Your task to perform on an android device: What's on the menu at Red Lobster? Image 0: 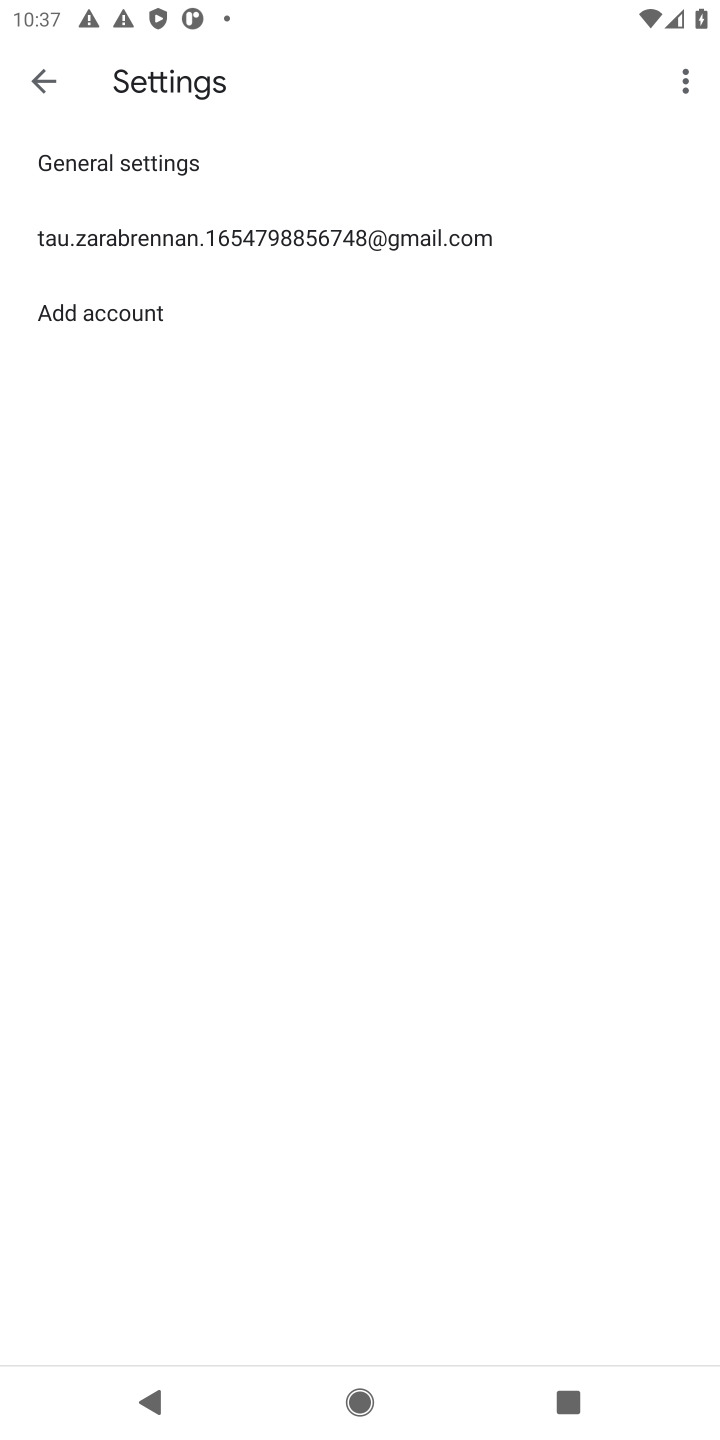
Step 0: press home button
Your task to perform on an android device: What's on the menu at Red Lobster? Image 1: 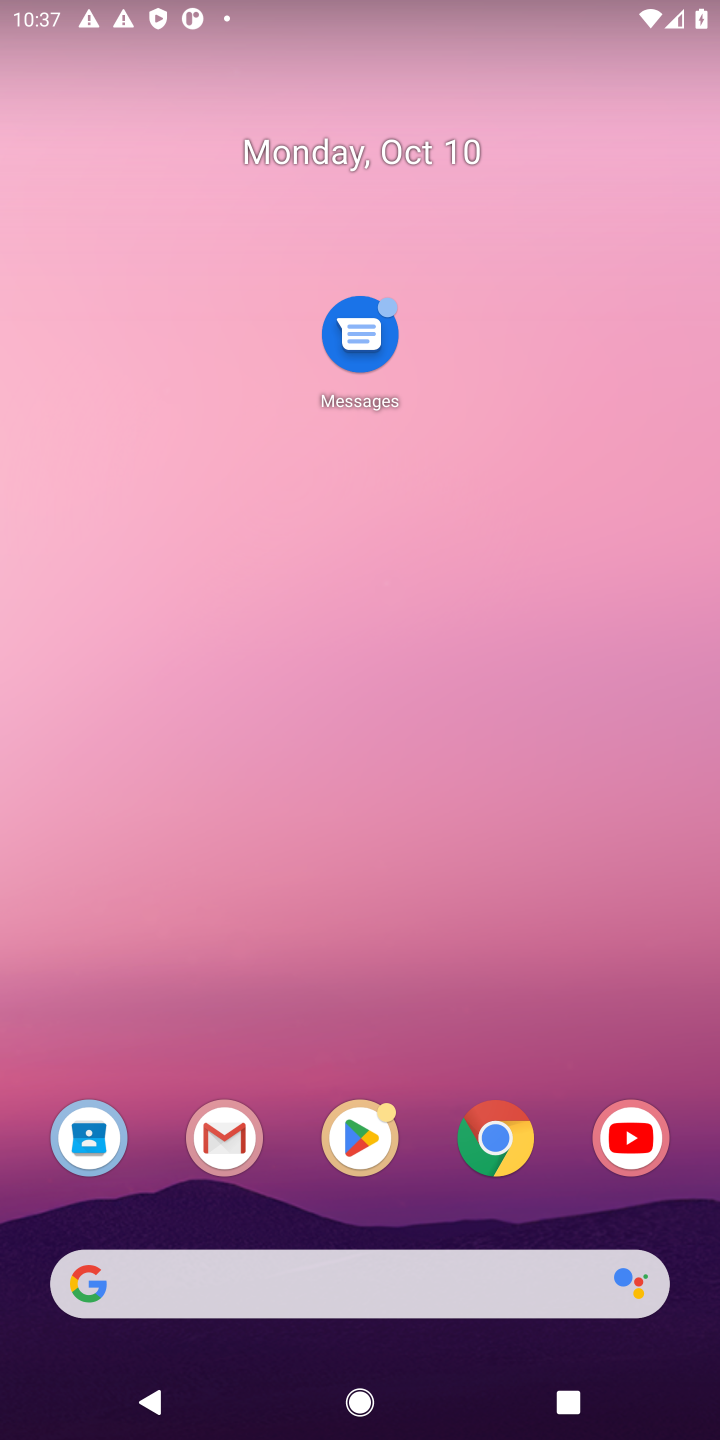
Step 1: click (494, 1142)
Your task to perform on an android device: What's on the menu at Red Lobster? Image 2: 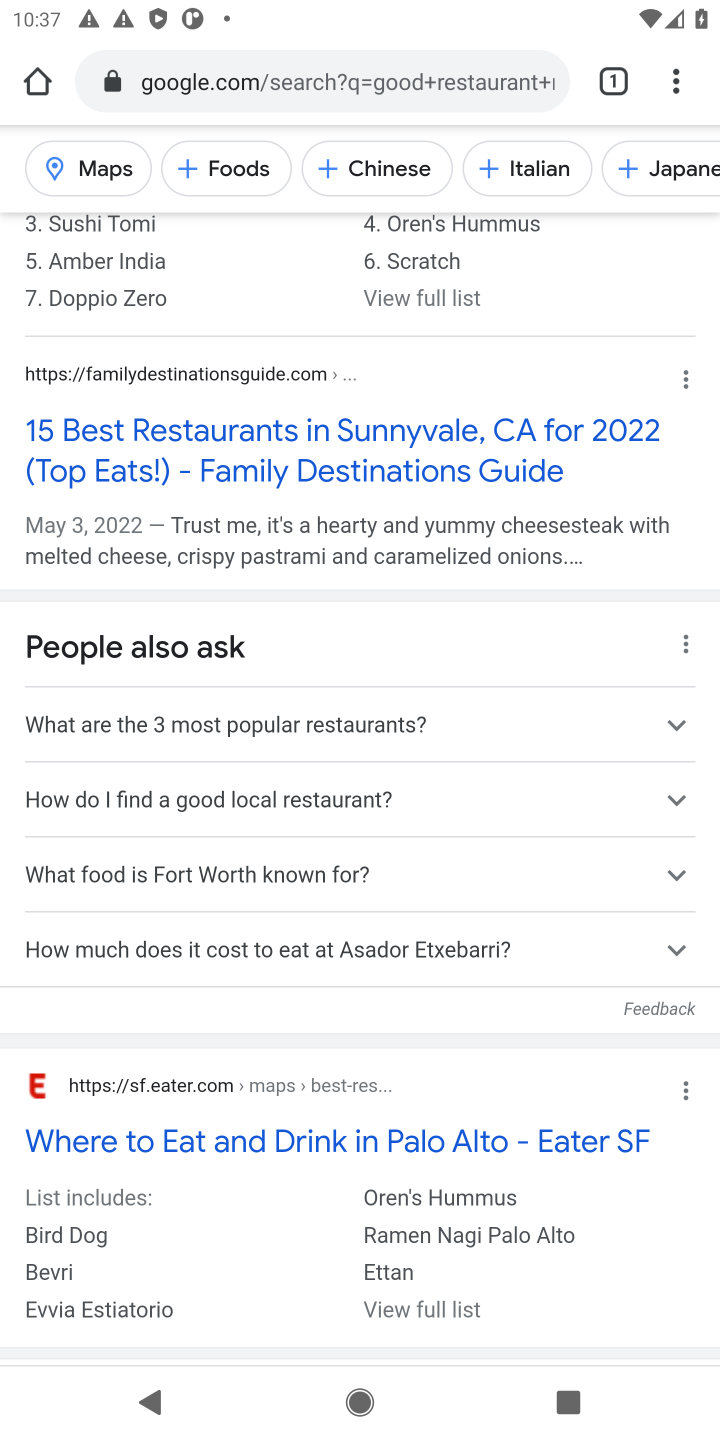
Step 2: click (281, 87)
Your task to perform on an android device: What's on the menu at Red Lobster? Image 3: 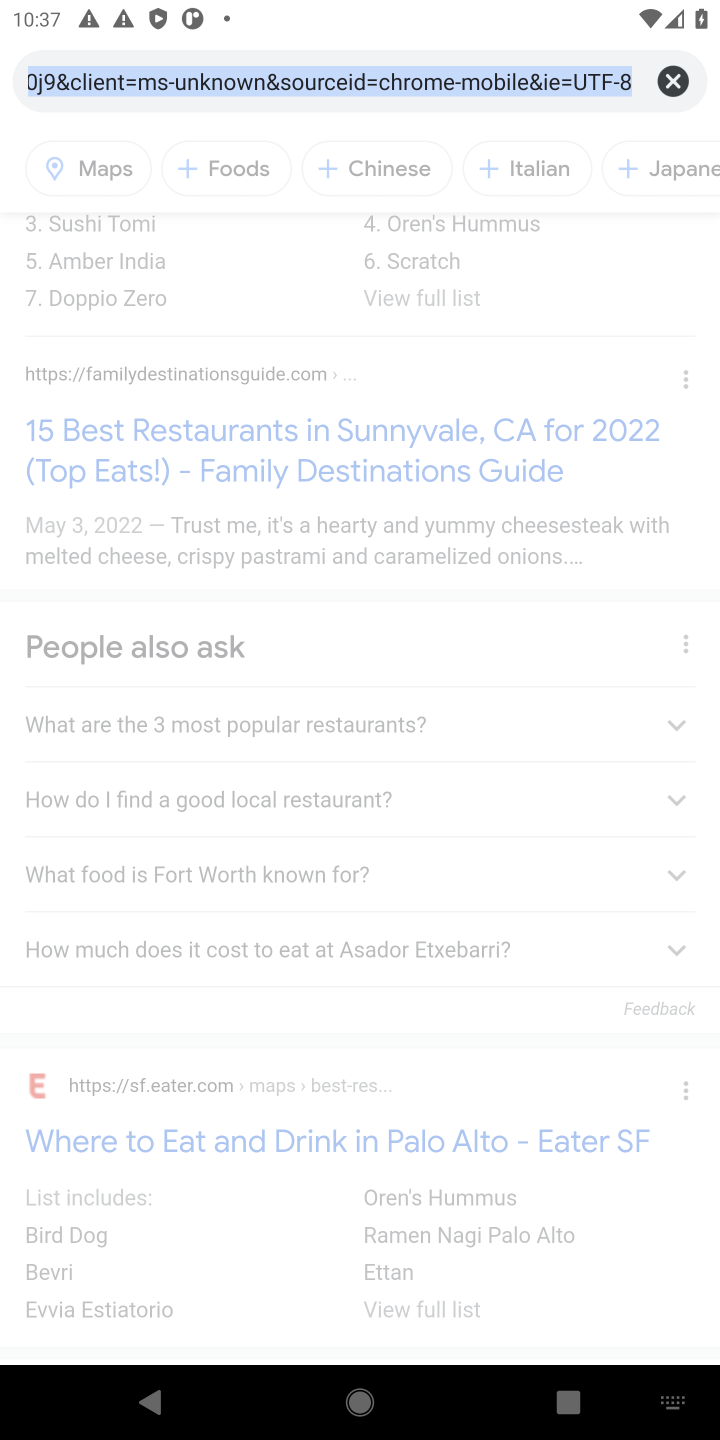
Step 3: type "red lobster"
Your task to perform on an android device: What's on the menu at Red Lobster? Image 4: 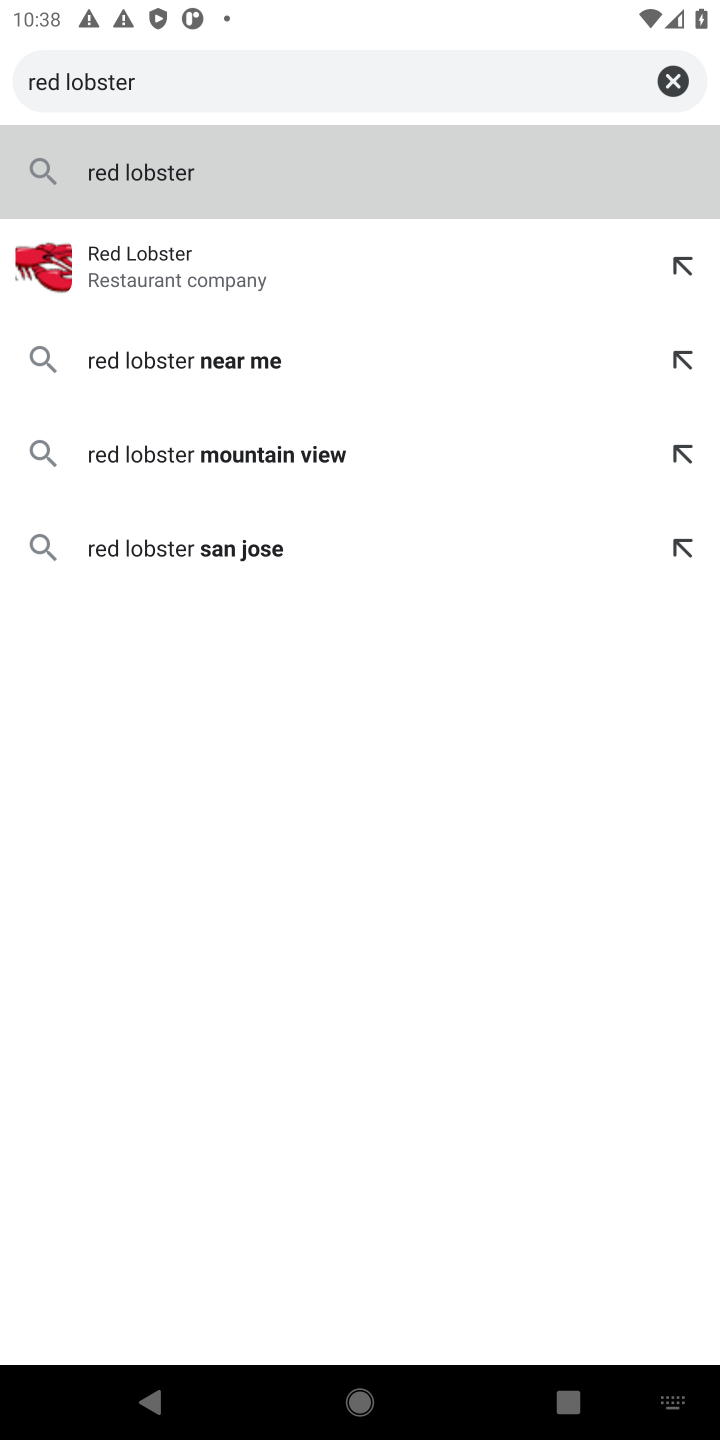
Step 4: press enter
Your task to perform on an android device: What's on the menu at Red Lobster? Image 5: 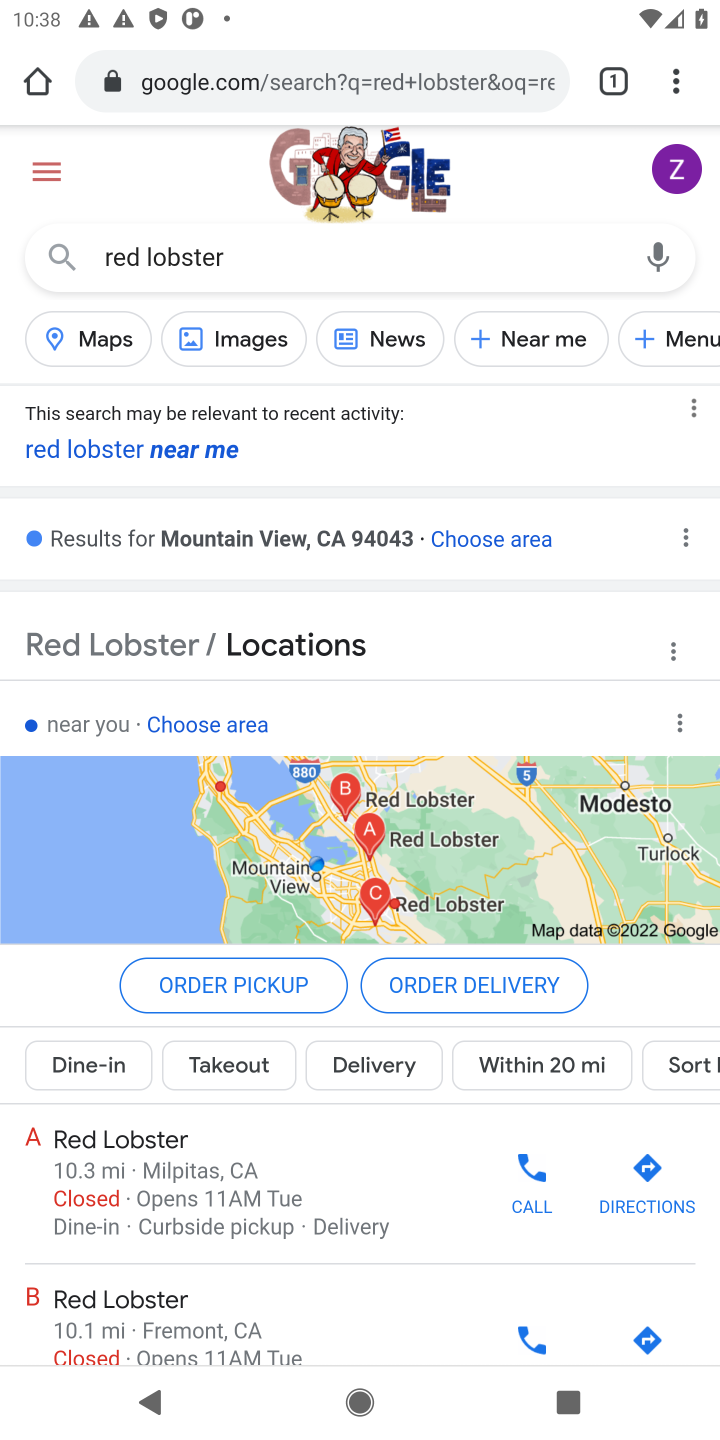
Step 5: drag from (475, 688) to (456, 251)
Your task to perform on an android device: What's on the menu at Red Lobster? Image 6: 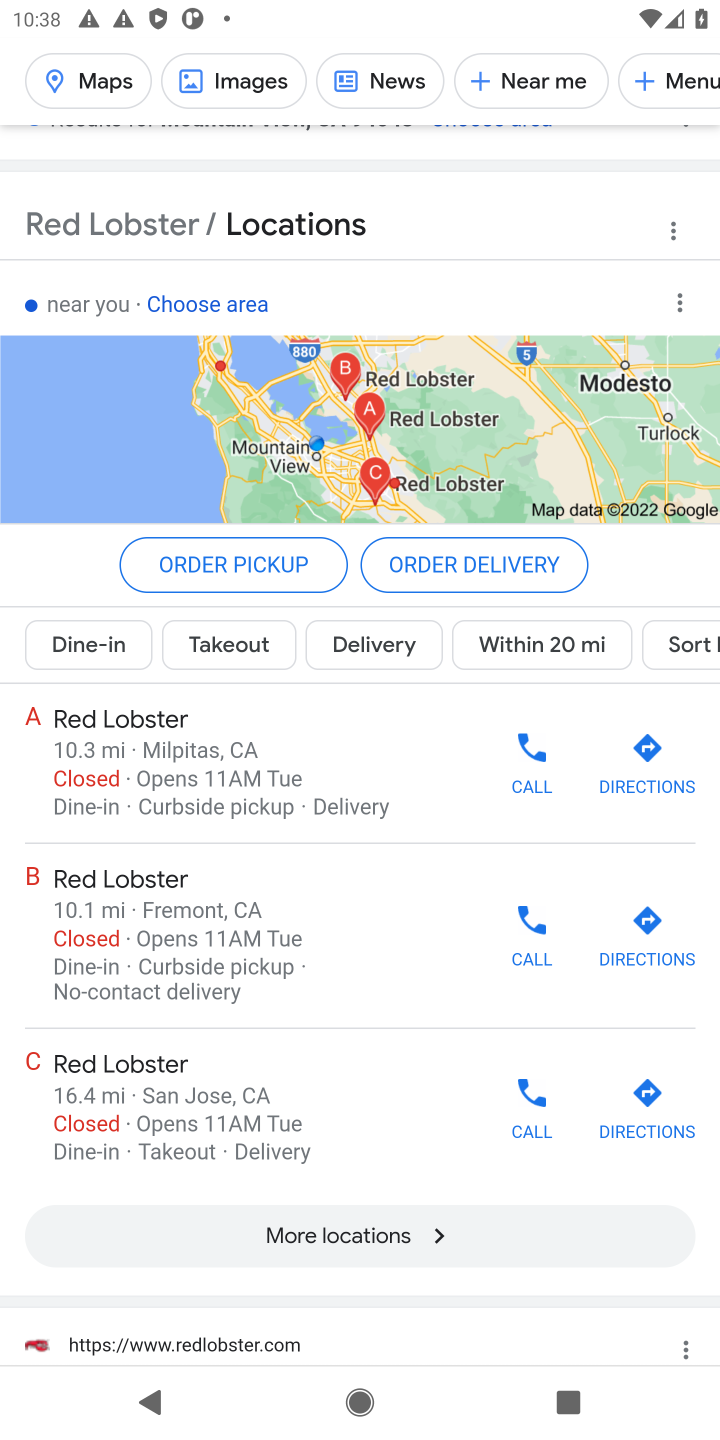
Step 6: drag from (325, 1123) to (367, 438)
Your task to perform on an android device: What's on the menu at Red Lobster? Image 7: 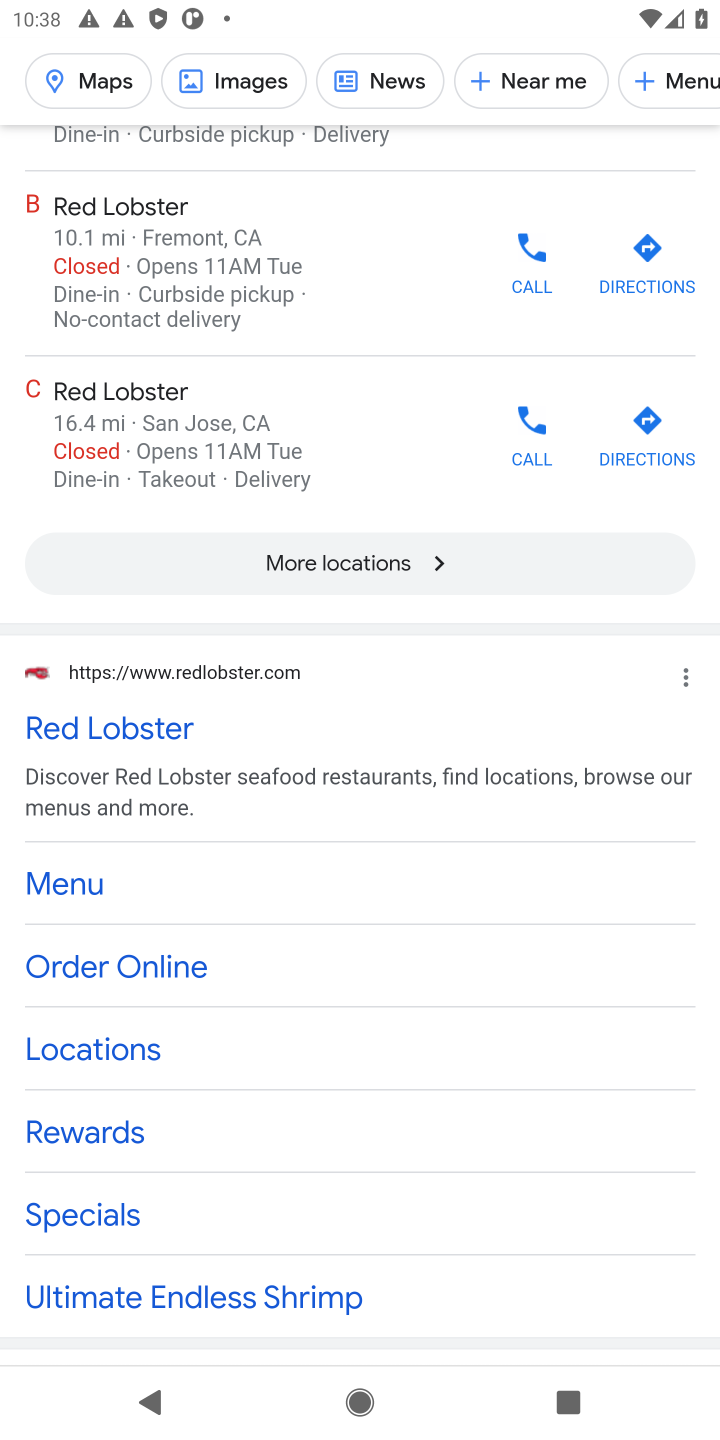
Step 7: click (76, 899)
Your task to perform on an android device: What's on the menu at Red Lobster? Image 8: 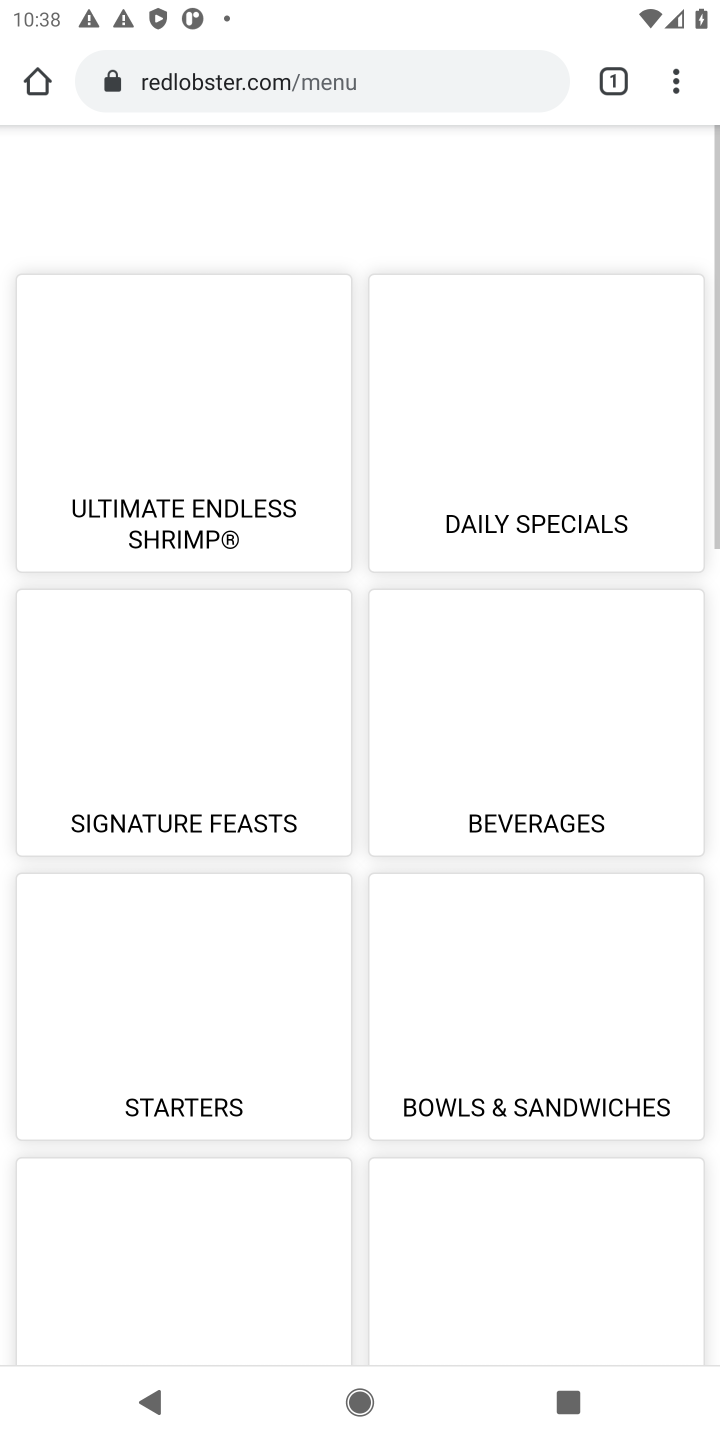
Step 8: drag from (339, 1073) to (311, 726)
Your task to perform on an android device: What's on the menu at Red Lobster? Image 9: 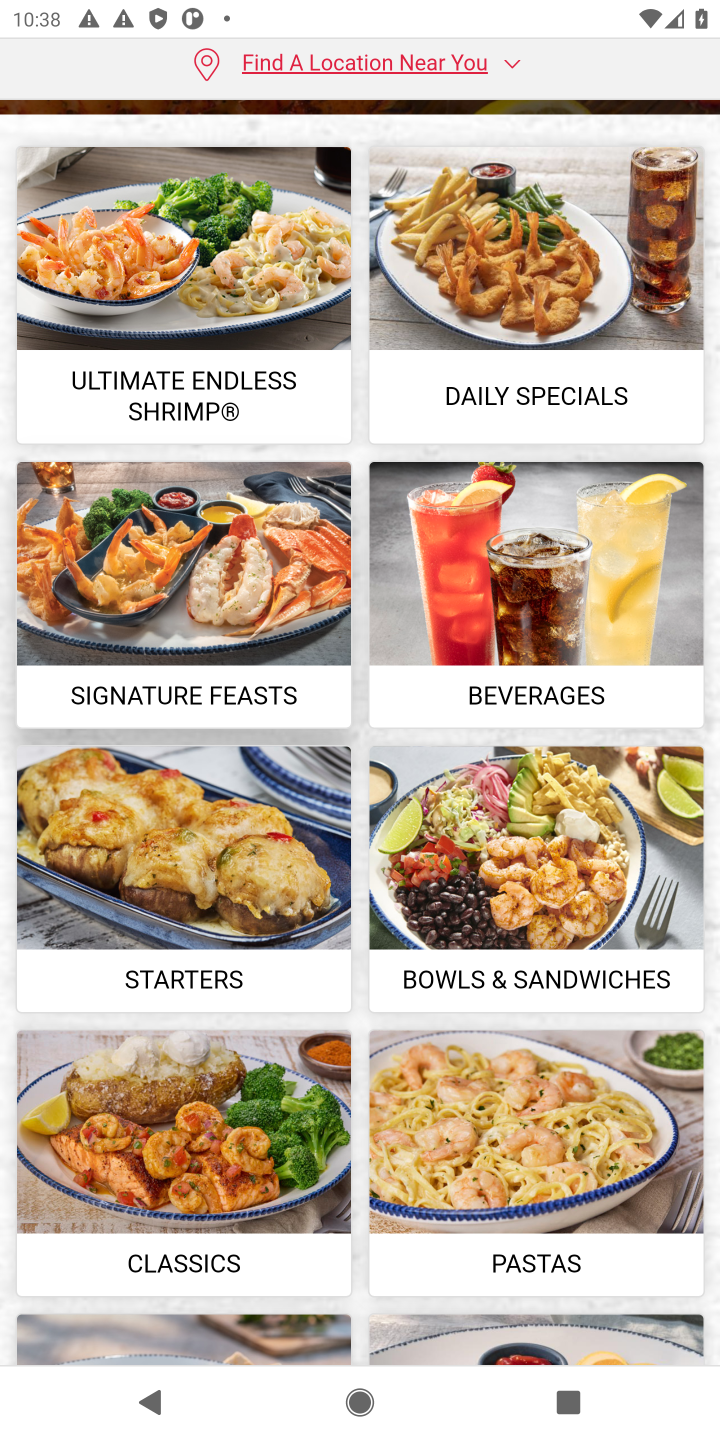
Step 9: click (332, 921)
Your task to perform on an android device: What's on the menu at Red Lobster? Image 10: 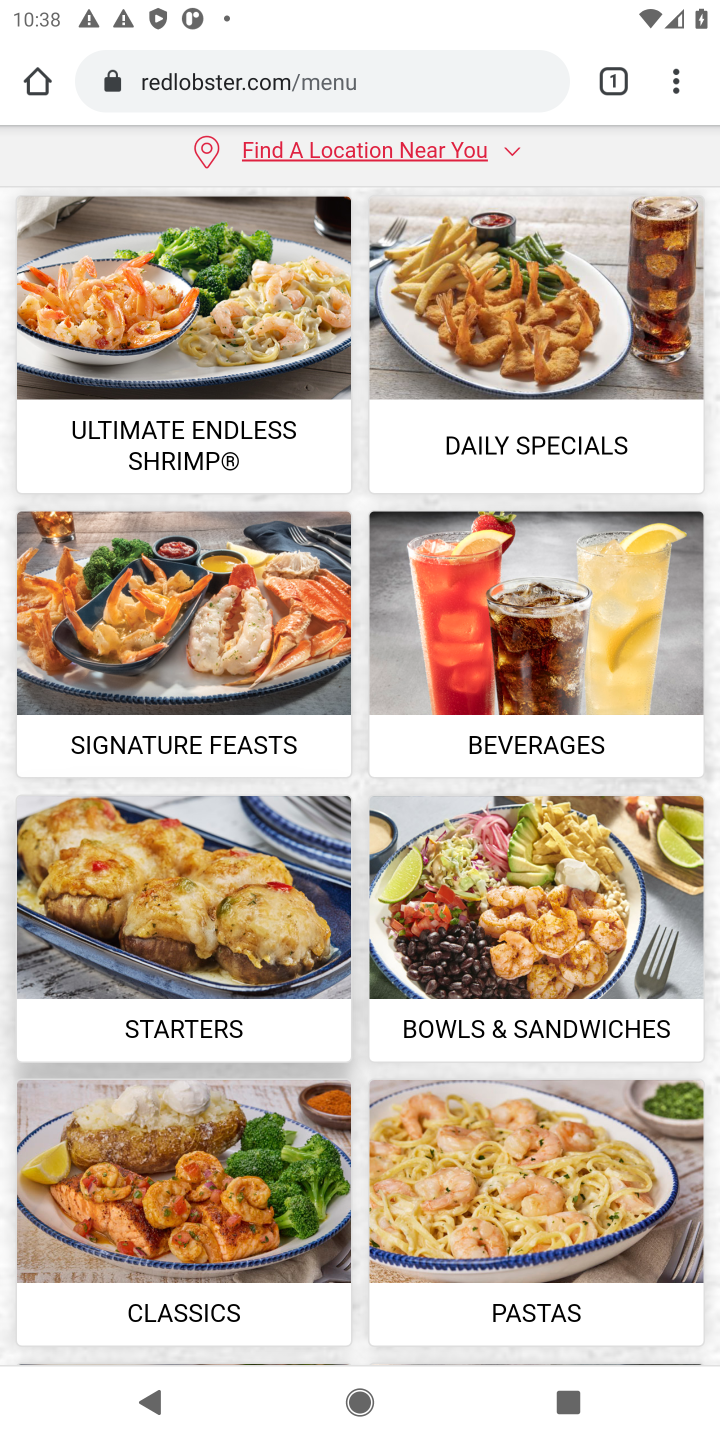
Step 10: drag from (324, 912) to (263, 1041)
Your task to perform on an android device: What's on the menu at Red Lobster? Image 11: 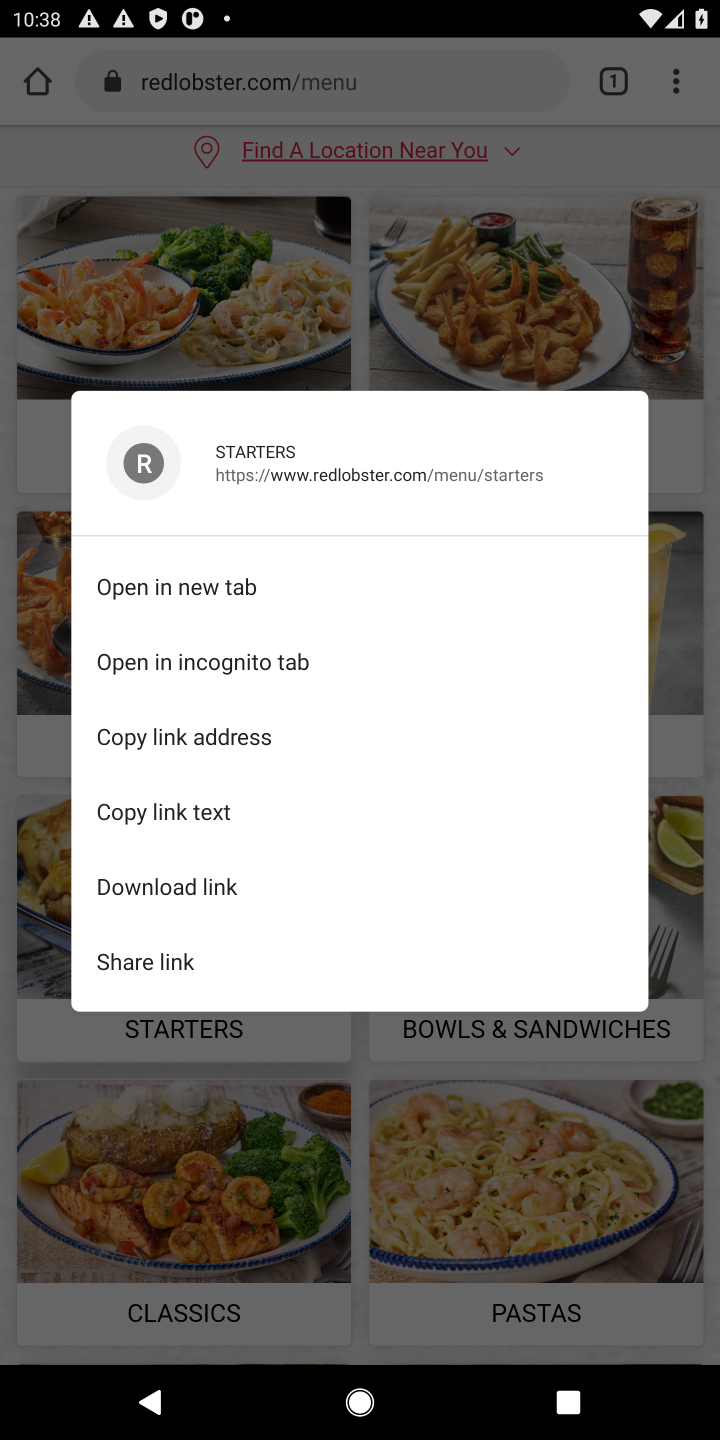
Step 11: click (235, 1061)
Your task to perform on an android device: What's on the menu at Red Lobster? Image 12: 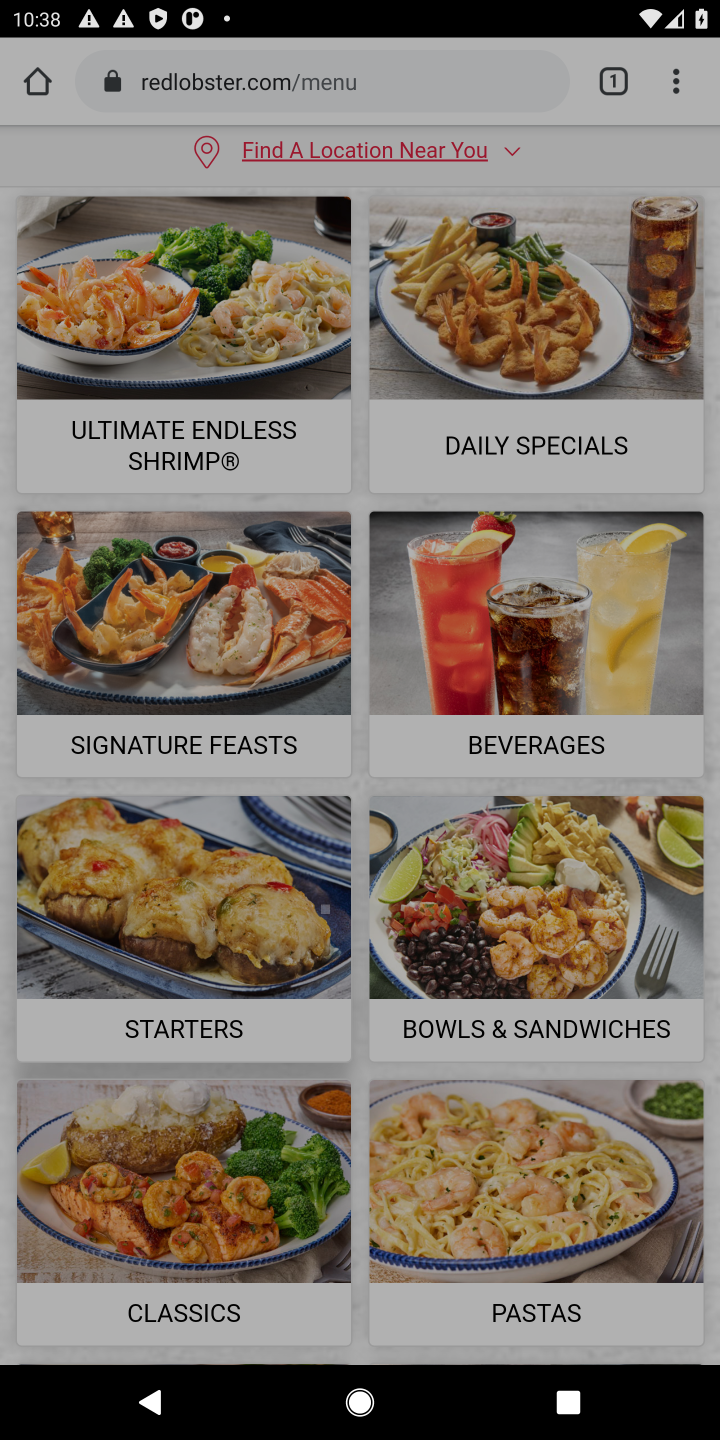
Step 12: click (508, 348)
Your task to perform on an android device: What's on the menu at Red Lobster? Image 13: 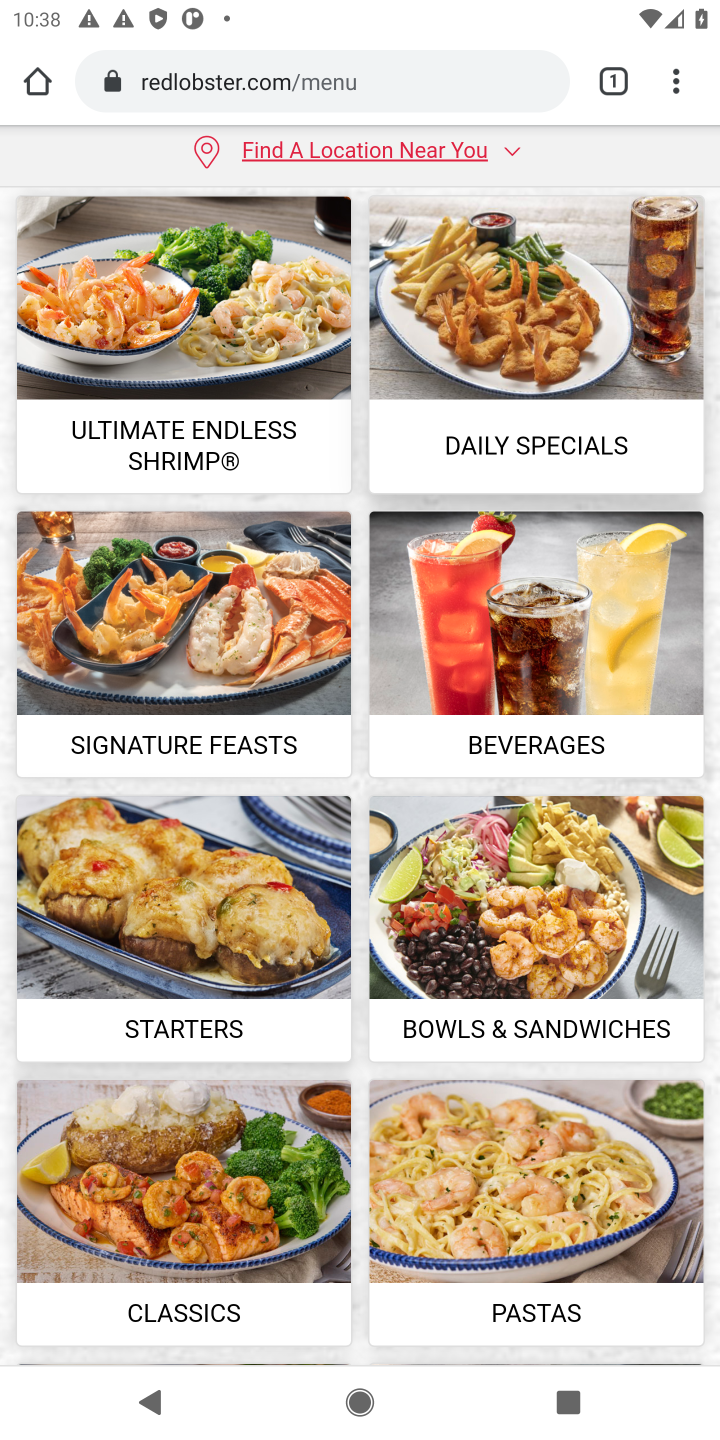
Step 13: drag from (316, 455) to (191, 735)
Your task to perform on an android device: What's on the menu at Red Lobster? Image 14: 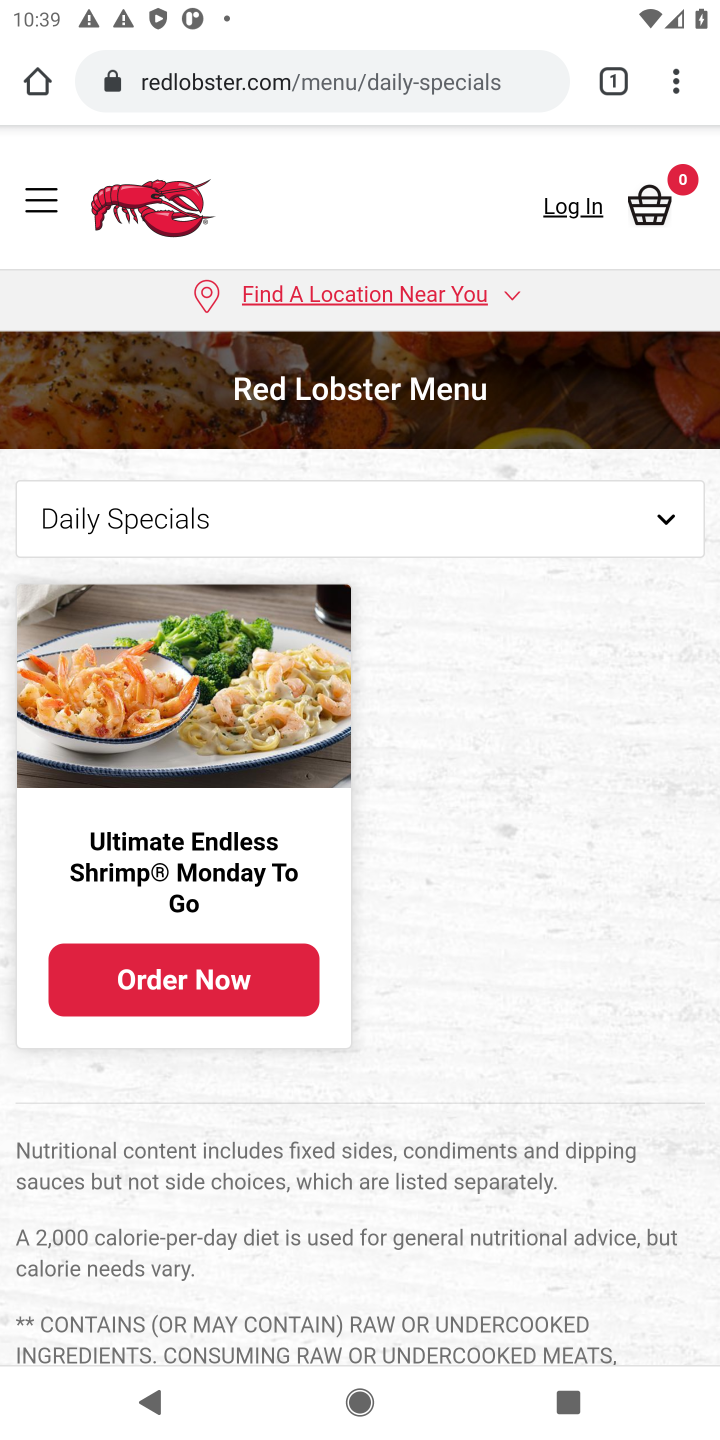
Step 14: drag from (462, 692) to (442, 798)
Your task to perform on an android device: What's on the menu at Red Lobster? Image 15: 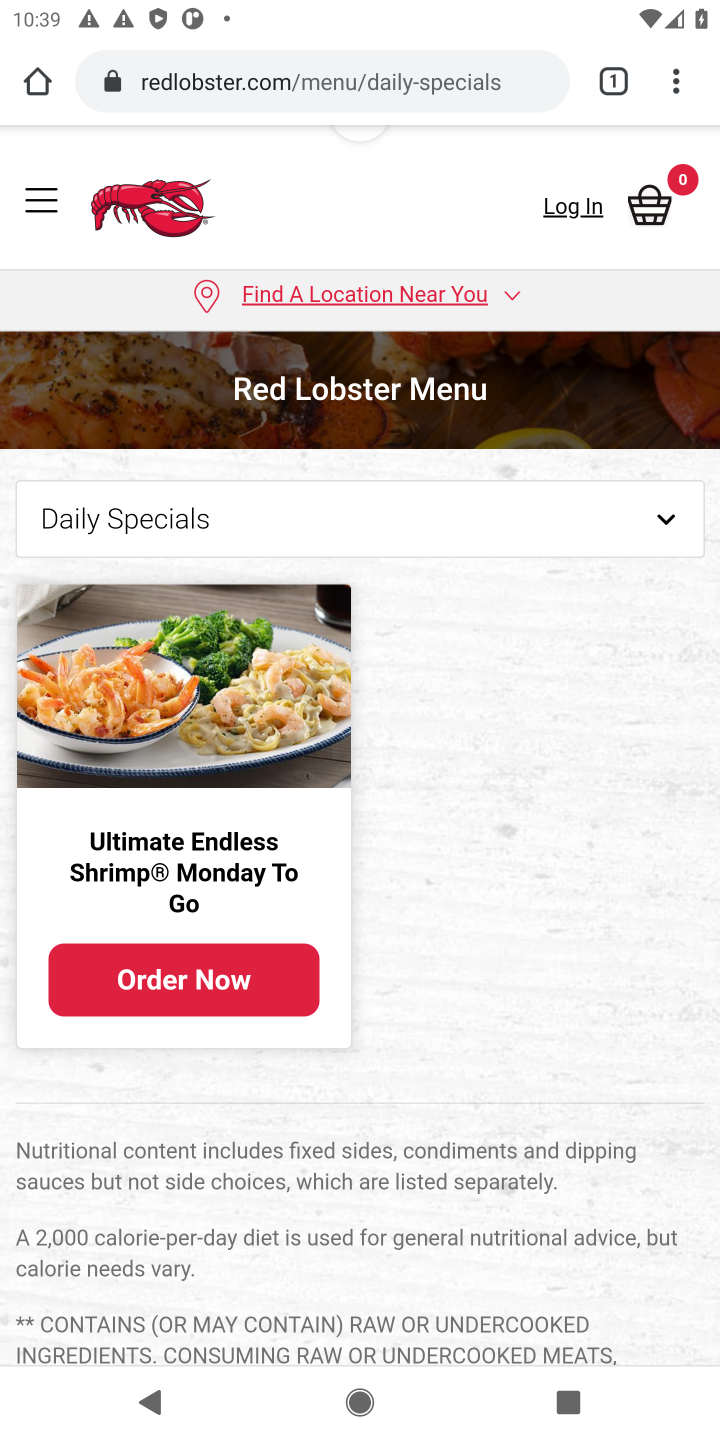
Step 15: click (487, 784)
Your task to perform on an android device: What's on the menu at Red Lobster? Image 16: 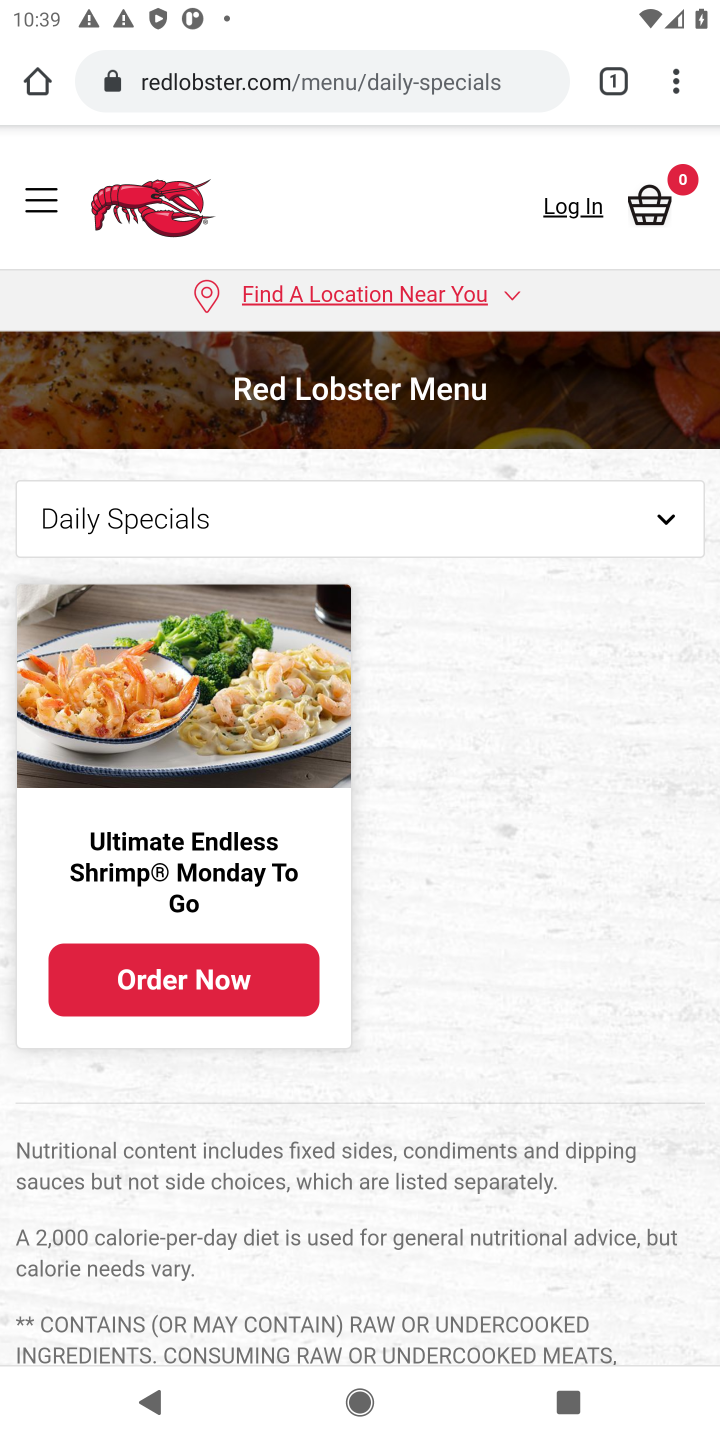
Step 16: click (527, 751)
Your task to perform on an android device: What's on the menu at Red Lobster? Image 17: 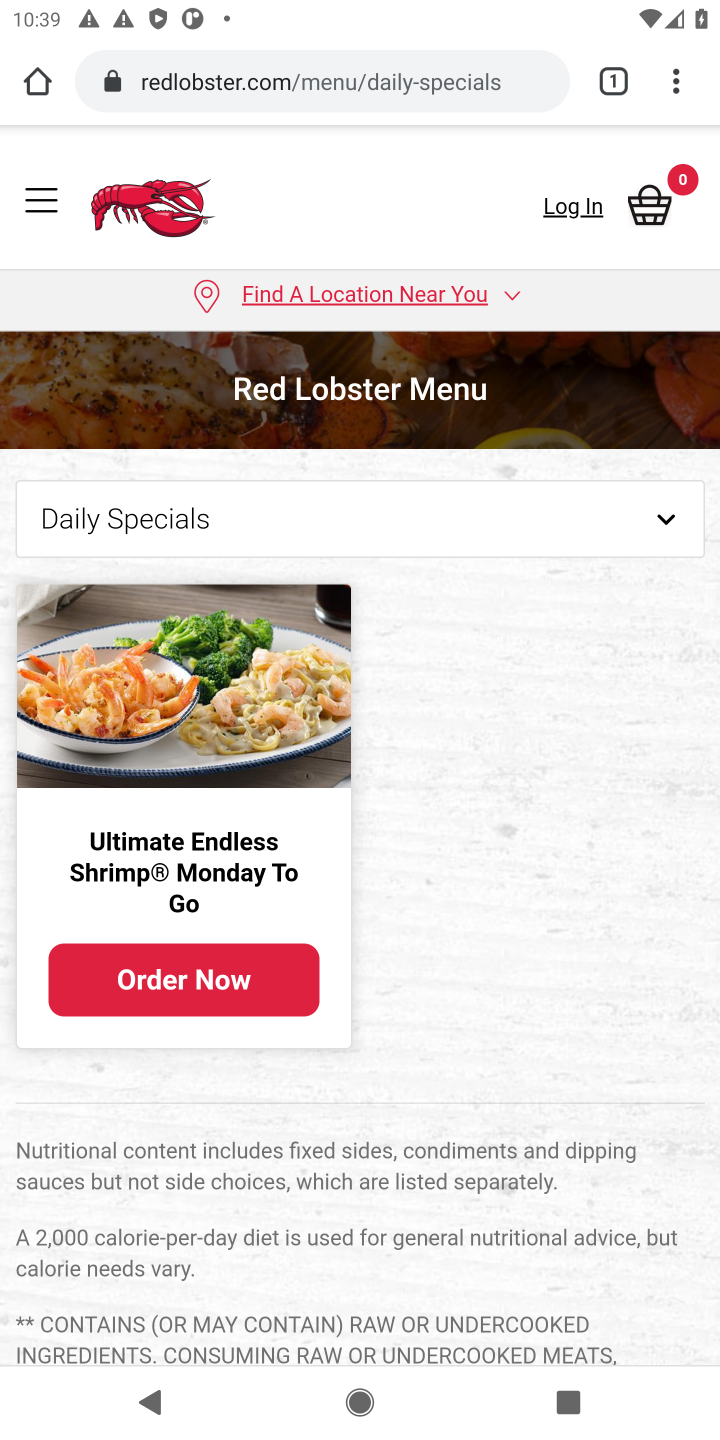
Step 17: click (621, 635)
Your task to perform on an android device: What's on the menu at Red Lobster? Image 18: 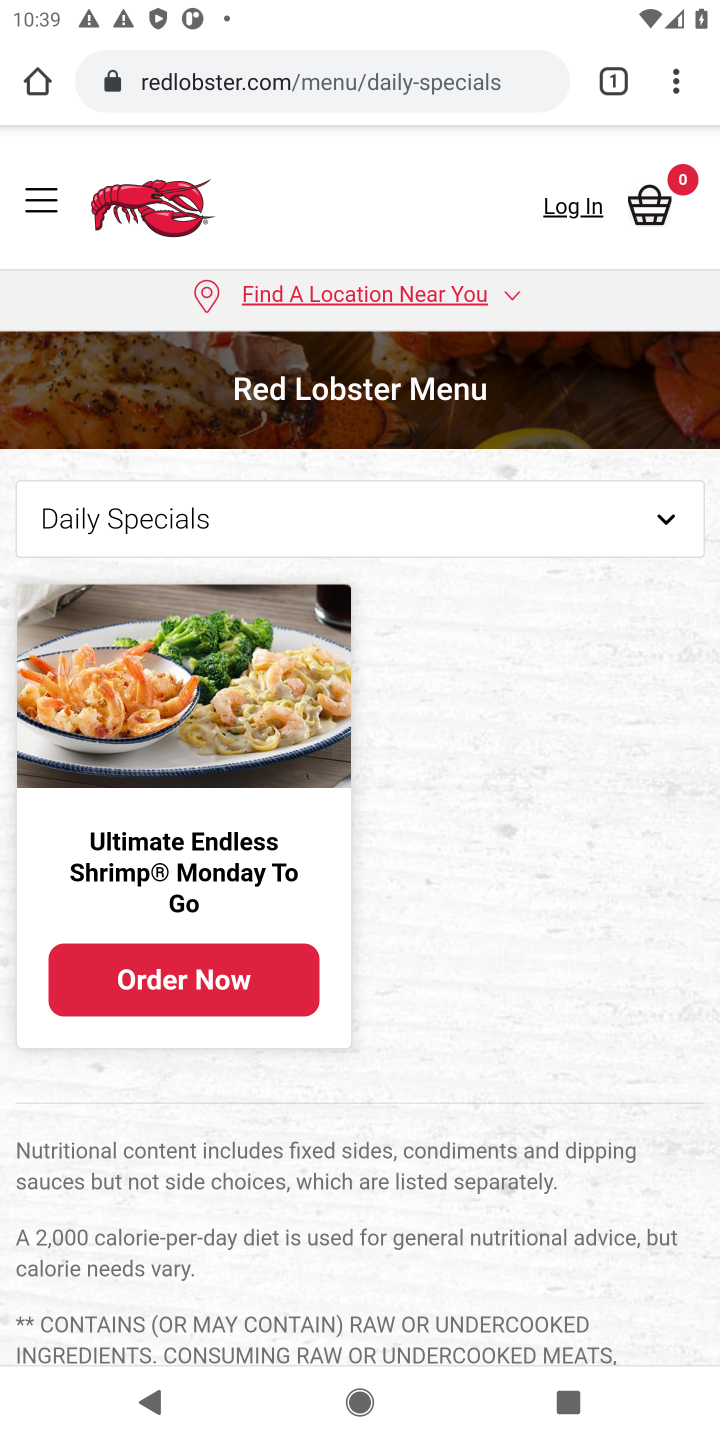
Step 18: click (512, 643)
Your task to perform on an android device: What's on the menu at Red Lobster? Image 19: 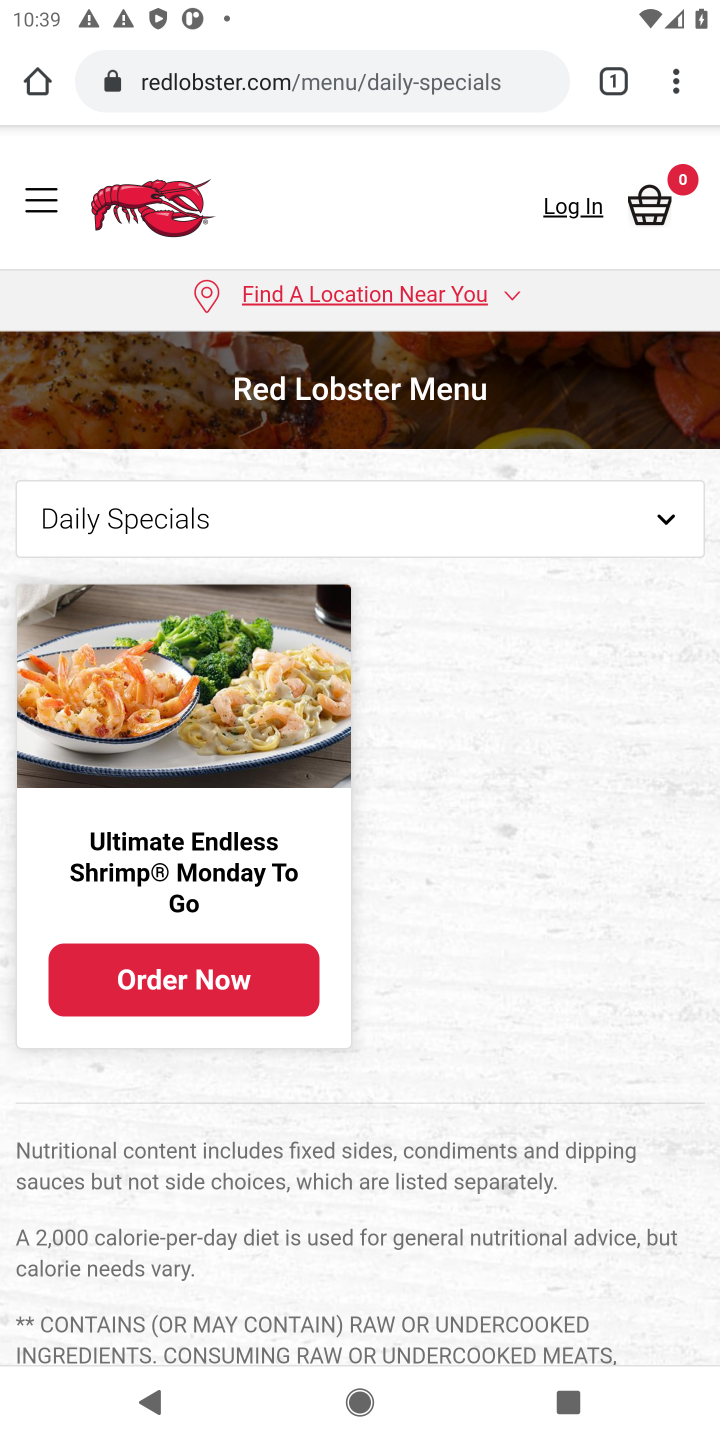
Step 19: drag from (419, 892) to (507, 1042)
Your task to perform on an android device: What's on the menu at Red Lobster? Image 20: 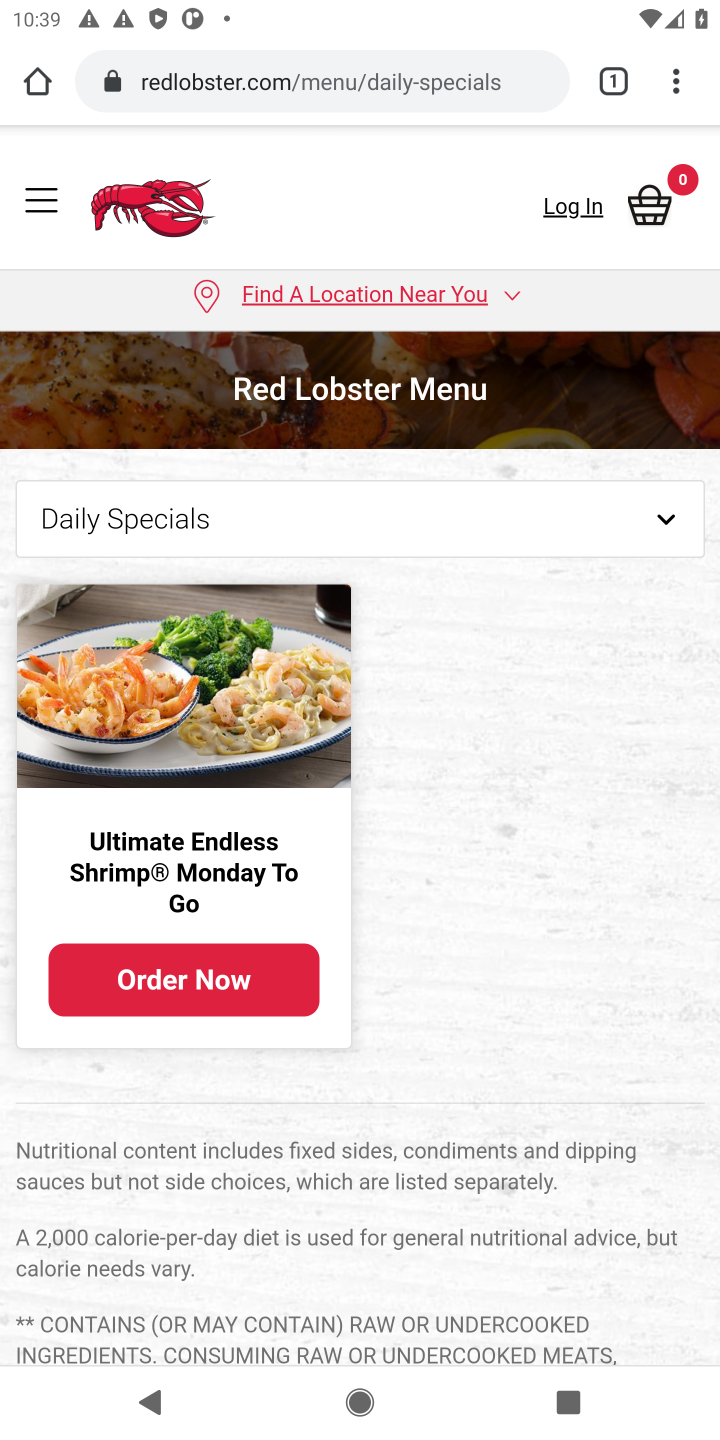
Step 20: click (433, 1040)
Your task to perform on an android device: What's on the menu at Red Lobster? Image 21: 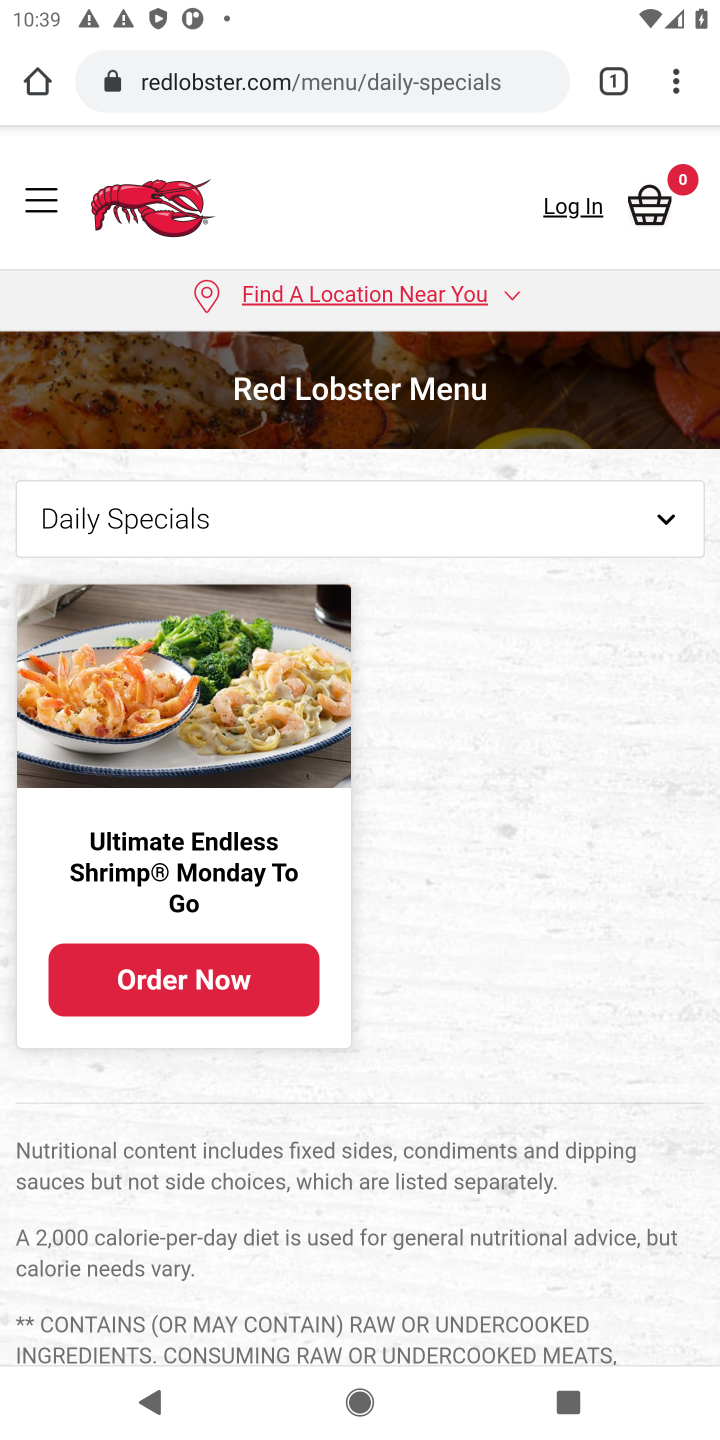
Step 21: task complete